Your task to perform on an android device: star an email in the gmail app Image 0: 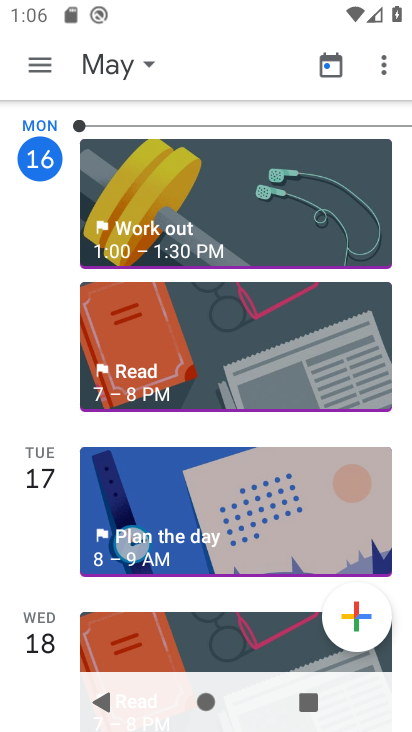
Step 0: press home button
Your task to perform on an android device: star an email in the gmail app Image 1: 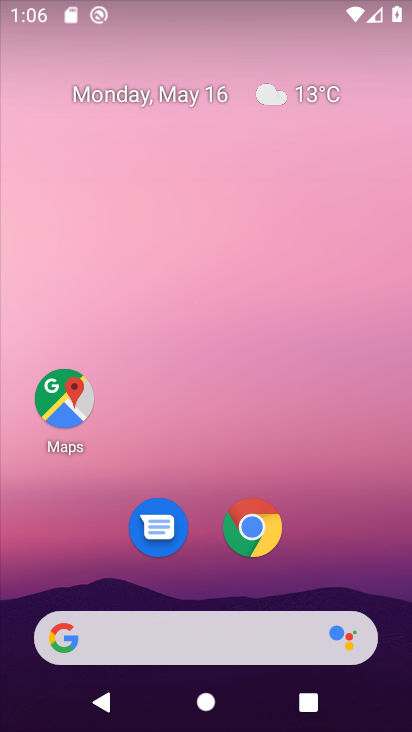
Step 1: drag from (327, 552) to (279, 93)
Your task to perform on an android device: star an email in the gmail app Image 2: 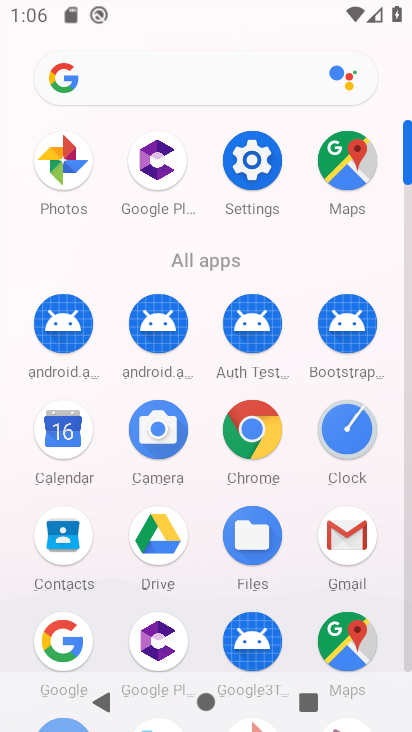
Step 2: click (340, 537)
Your task to perform on an android device: star an email in the gmail app Image 3: 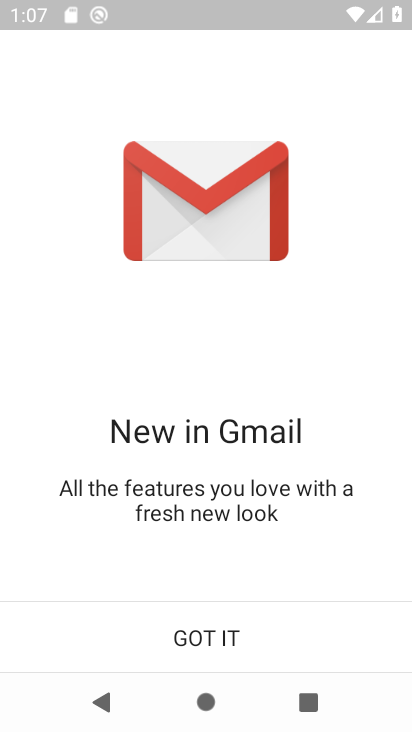
Step 3: click (222, 629)
Your task to perform on an android device: star an email in the gmail app Image 4: 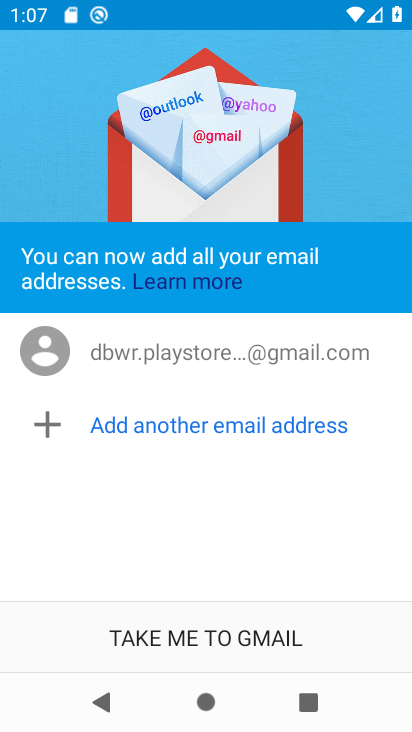
Step 4: click (222, 629)
Your task to perform on an android device: star an email in the gmail app Image 5: 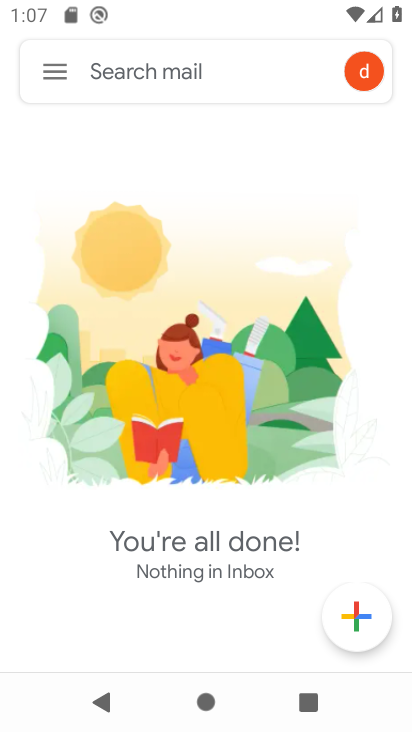
Step 5: click (50, 64)
Your task to perform on an android device: star an email in the gmail app Image 6: 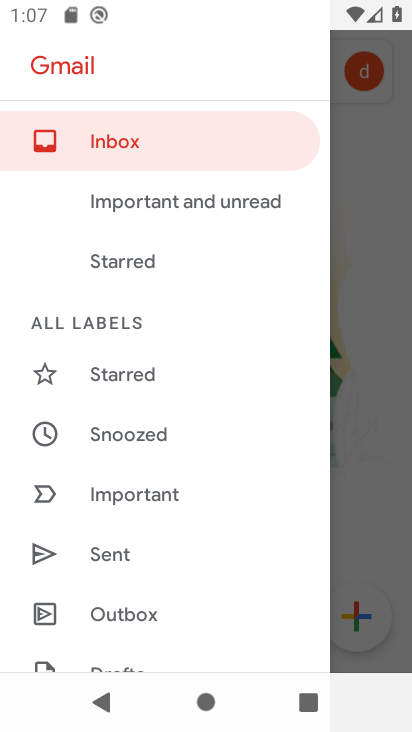
Step 6: click (343, 233)
Your task to perform on an android device: star an email in the gmail app Image 7: 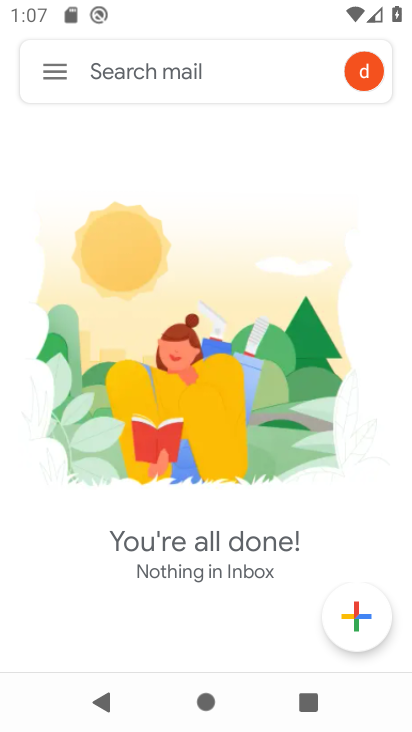
Step 7: task complete